Your task to perform on an android device: turn off translation in the chrome app Image 0: 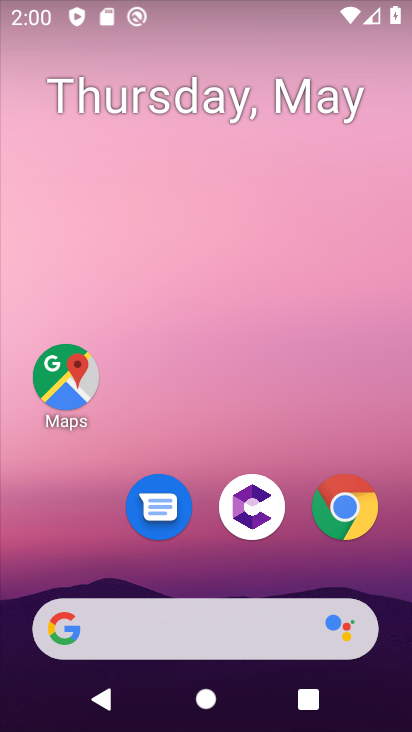
Step 0: press home button
Your task to perform on an android device: turn off translation in the chrome app Image 1: 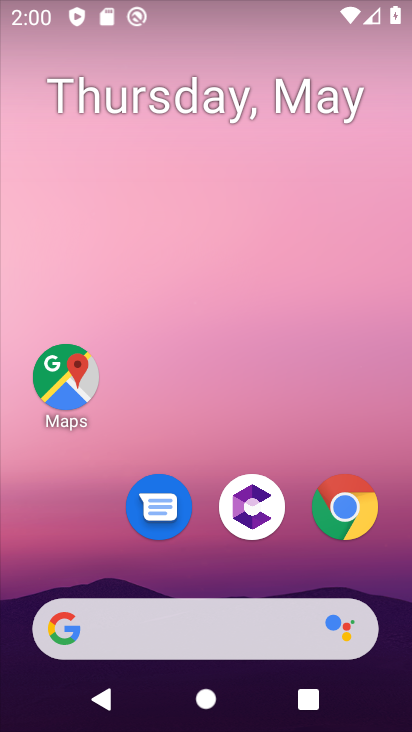
Step 1: click (348, 517)
Your task to perform on an android device: turn off translation in the chrome app Image 2: 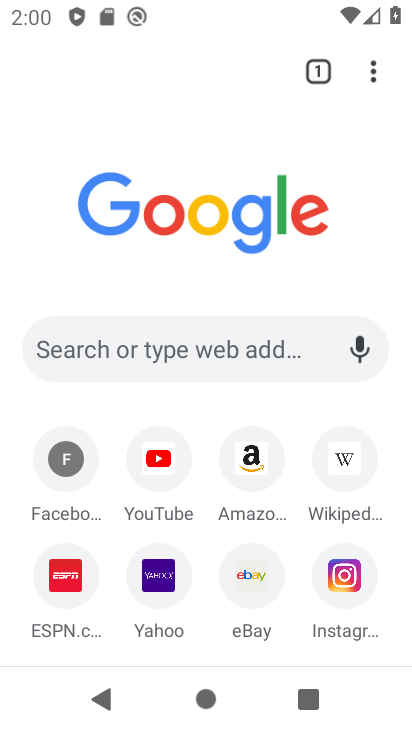
Step 2: drag from (369, 74) to (164, 497)
Your task to perform on an android device: turn off translation in the chrome app Image 3: 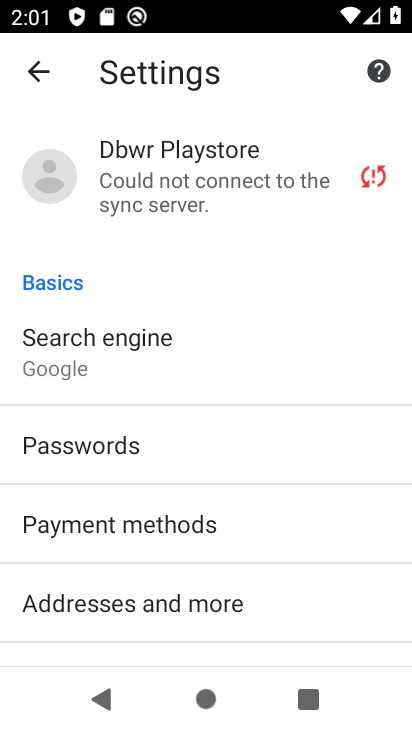
Step 3: drag from (279, 606) to (208, 60)
Your task to perform on an android device: turn off translation in the chrome app Image 4: 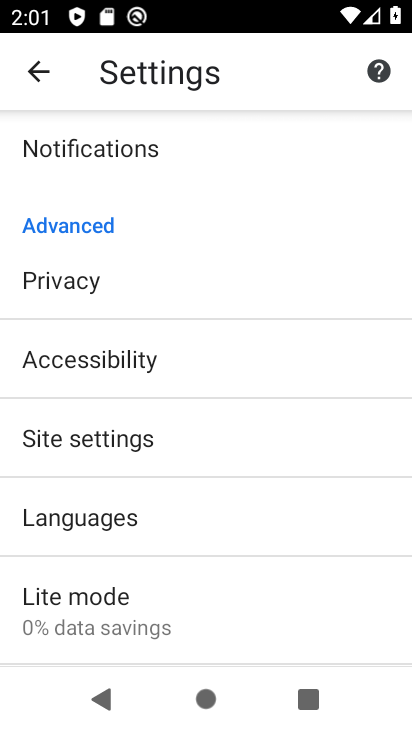
Step 4: click (87, 521)
Your task to perform on an android device: turn off translation in the chrome app Image 5: 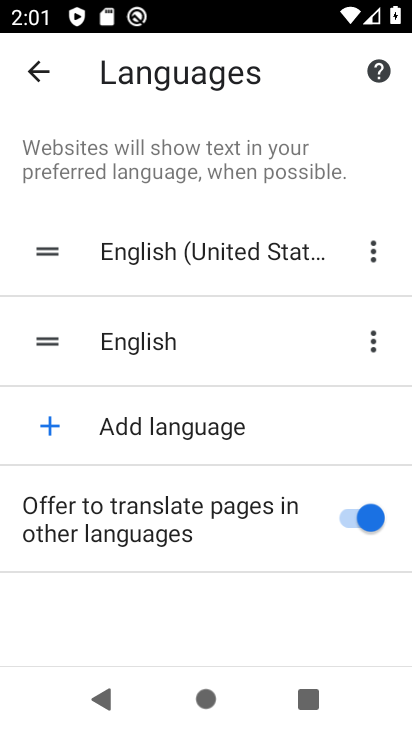
Step 5: click (369, 521)
Your task to perform on an android device: turn off translation in the chrome app Image 6: 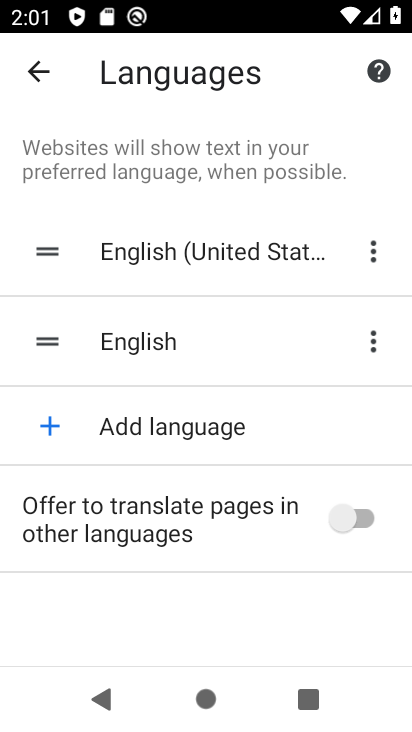
Step 6: task complete